Your task to perform on an android device: delete a single message in the gmail app Image 0: 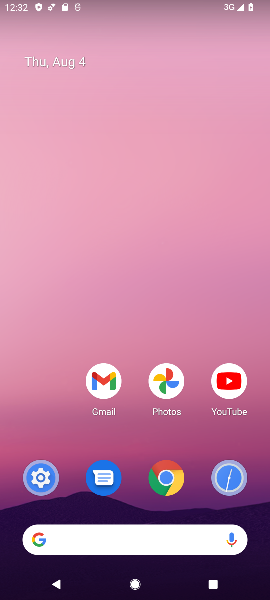
Step 0: press home button
Your task to perform on an android device: delete a single message in the gmail app Image 1: 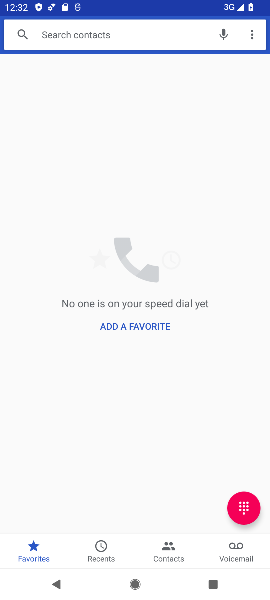
Step 1: press home button
Your task to perform on an android device: delete a single message in the gmail app Image 2: 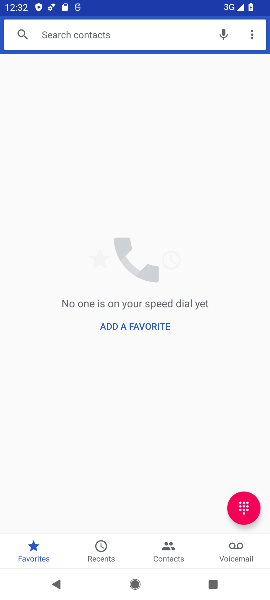
Step 2: press home button
Your task to perform on an android device: delete a single message in the gmail app Image 3: 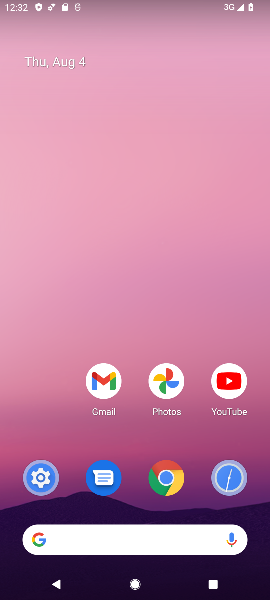
Step 3: drag from (131, 513) to (143, 119)
Your task to perform on an android device: delete a single message in the gmail app Image 4: 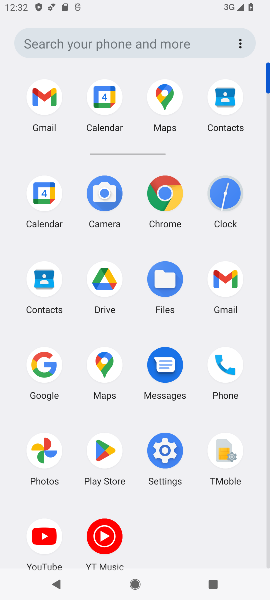
Step 4: click (48, 112)
Your task to perform on an android device: delete a single message in the gmail app Image 5: 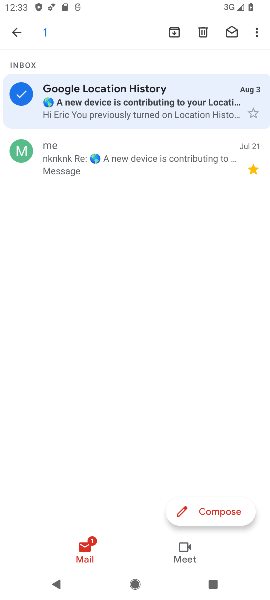
Step 5: press home button
Your task to perform on an android device: delete a single message in the gmail app Image 6: 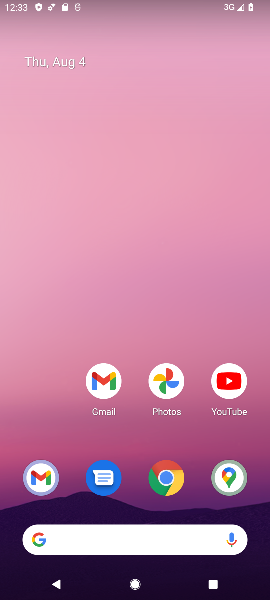
Step 6: drag from (182, 431) to (156, 18)
Your task to perform on an android device: delete a single message in the gmail app Image 7: 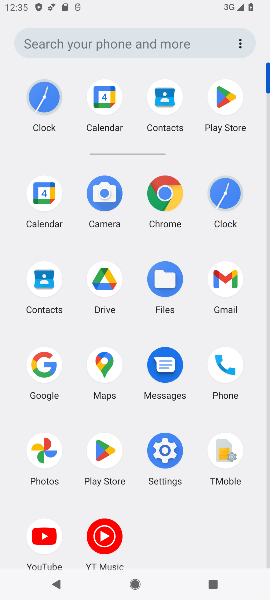
Step 7: click (218, 285)
Your task to perform on an android device: delete a single message in the gmail app Image 8: 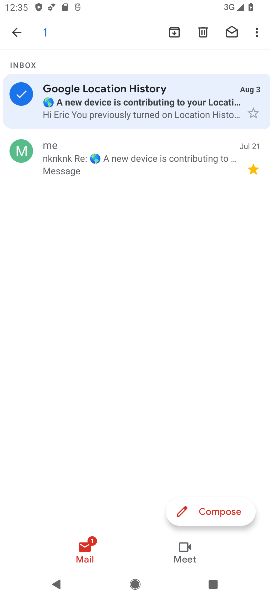
Step 8: click (198, 27)
Your task to perform on an android device: delete a single message in the gmail app Image 9: 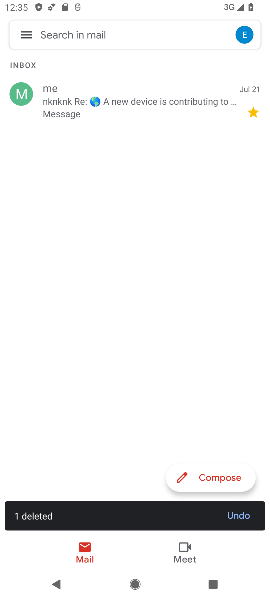
Step 9: task complete